Your task to perform on an android device: Look up the best rated headphones on Amazon. Image 0: 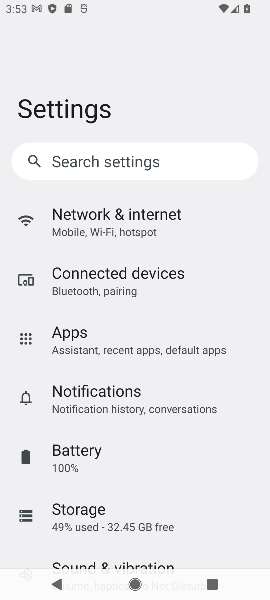
Step 0: press home button
Your task to perform on an android device: Look up the best rated headphones on Amazon. Image 1: 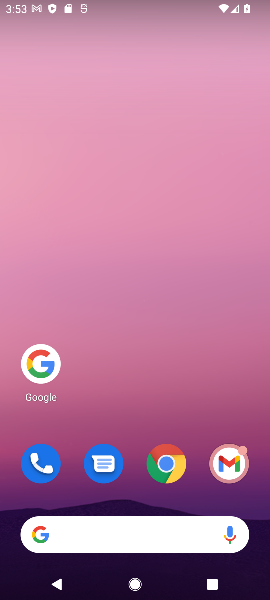
Step 1: click (42, 359)
Your task to perform on an android device: Look up the best rated headphones on Amazon. Image 2: 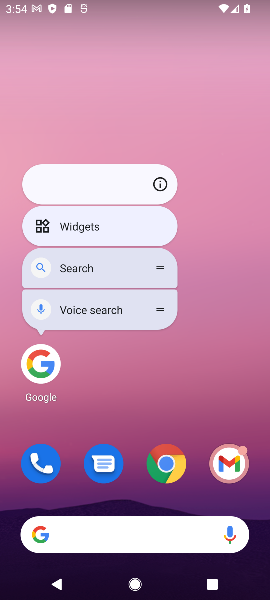
Step 2: click (42, 359)
Your task to perform on an android device: Look up the best rated headphones on Amazon. Image 3: 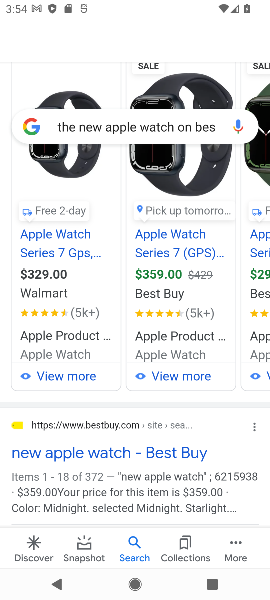
Step 3: click (201, 122)
Your task to perform on an android device: Look up the best rated headphones on Amazon. Image 4: 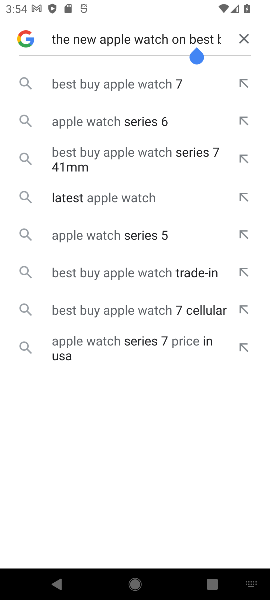
Step 4: click (244, 41)
Your task to perform on an android device: Look up the best rated headphones on Amazon. Image 5: 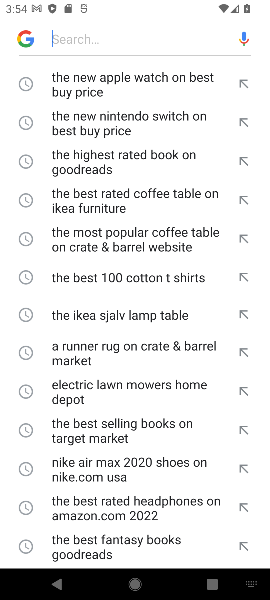
Step 5: click (122, 32)
Your task to perform on an android device: Look up the best rated headphones on Amazon. Image 6: 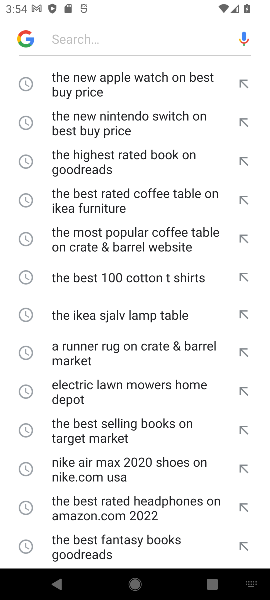
Step 6: type "the best rated headphones on Amazon "
Your task to perform on an android device: Look up the best rated headphones on Amazon. Image 7: 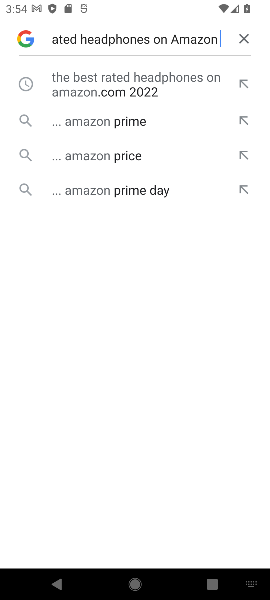
Step 7: click (105, 148)
Your task to perform on an android device: Look up the best rated headphones on Amazon. Image 8: 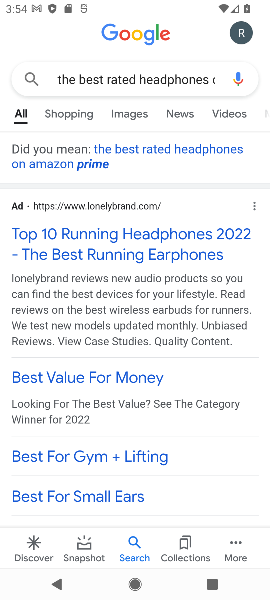
Step 8: click (127, 249)
Your task to perform on an android device: Look up the best rated headphones on Amazon. Image 9: 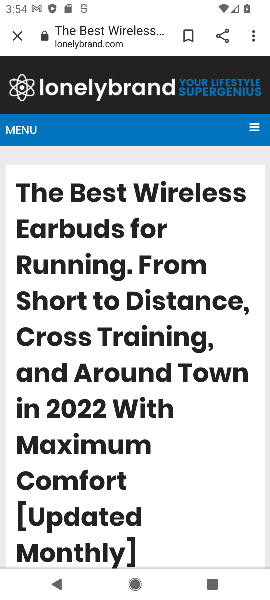
Step 9: drag from (190, 537) to (265, 211)
Your task to perform on an android device: Look up the best rated headphones on Amazon. Image 10: 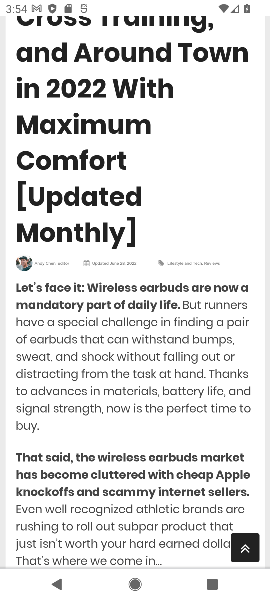
Step 10: press back button
Your task to perform on an android device: Look up the best rated headphones on Amazon. Image 11: 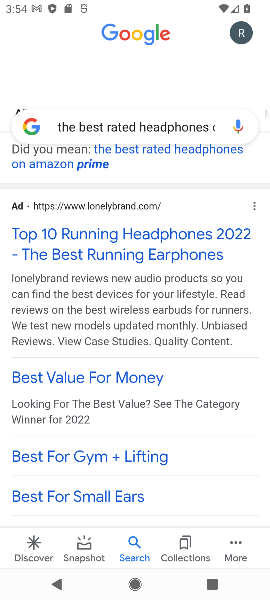
Step 11: drag from (131, 493) to (184, 231)
Your task to perform on an android device: Look up the best rated headphones on Amazon. Image 12: 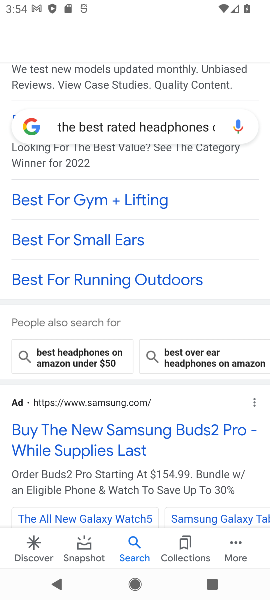
Step 12: drag from (93, 495) to (174, 258)
Your task to perform on an android device: Look up the best rated headphones on Amazon. Image 13: 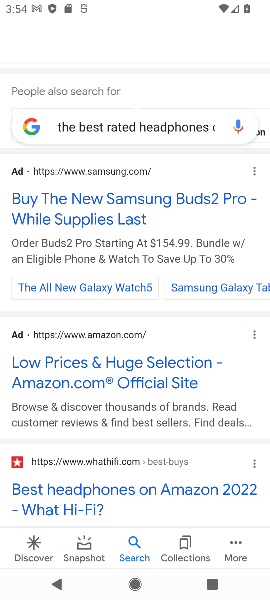
Step 13: drag from (125, 471) to (168, 319)
Your task to perform on an android device: Look up the best rated headphones on Amazon. Image 14: 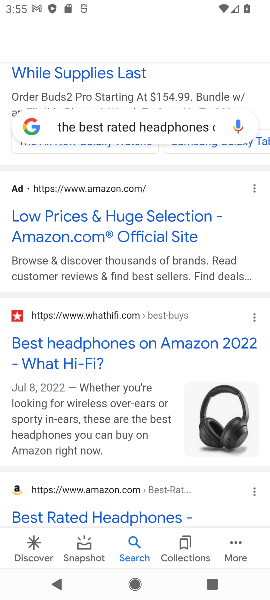
Step 14: click (43, 340)
Your task to perform on an android device: Look up the best rated headphones on Amazon. Image 15: 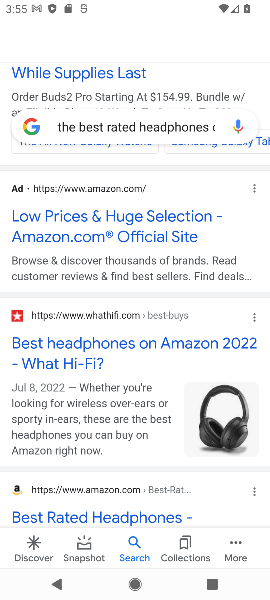
Step 15: click (40, 358)
Your task to perform on an android device: Look up the best rated headphones on Amazon. Image 16: 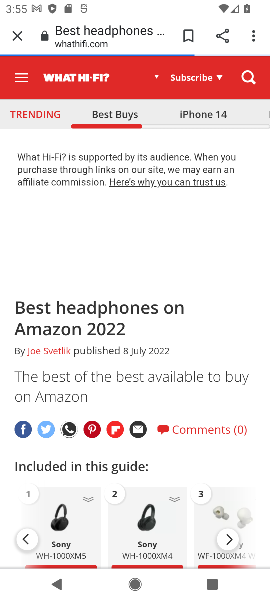
Step 16: press back button
Your task to perform on an android device: Look up the best rated headphones on Amazon. Image 17: 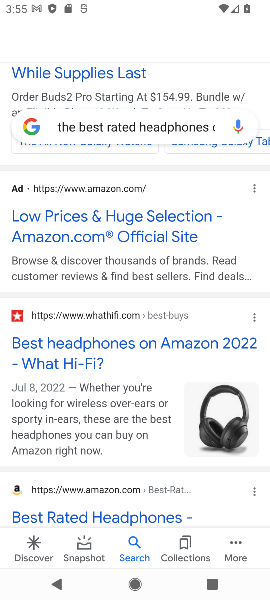
Step 17: drag from (163, 455) to (193, 215)
Your task to perform on an android device: Look up the best rated headphones on Amazon. Image 18: 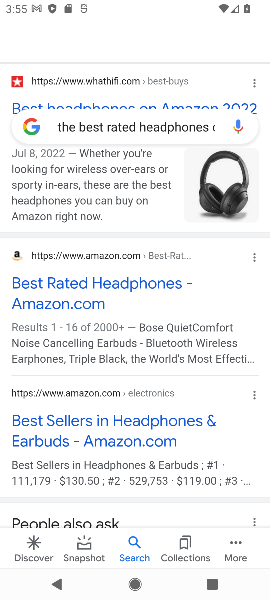
Step 18: click (51, 279)
Your task to perform on an android device: Look up the best rated headphones on Amazon. Image 19: 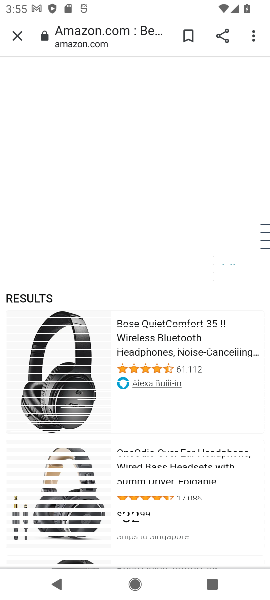
Step 19: task complete